Your task to perform on an android device: add a label to a message in the gmail app Image 0: 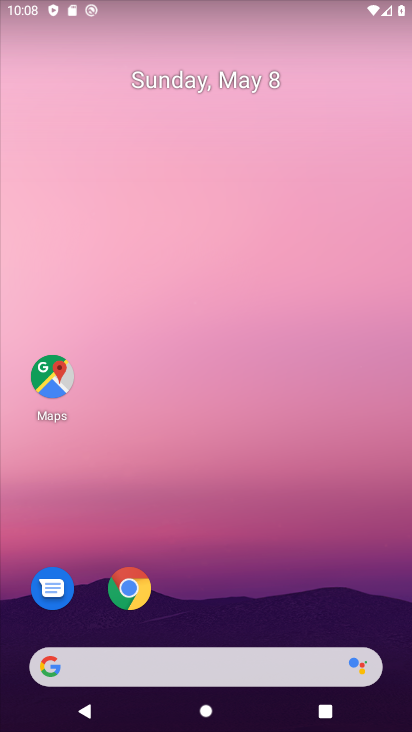
Step 0: drag from (201, 652) to (237, 436)
Your task to perform on an android device: add a label to a message in the gmail app Image 1: 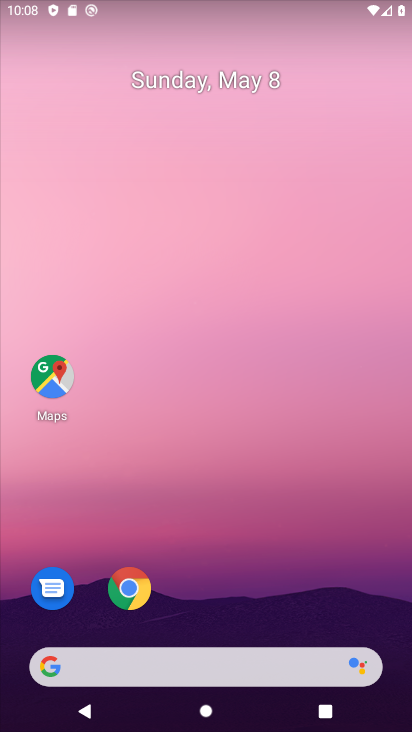
Step 1: drag from (225, 640) to (286, 149)
Your task to perform on an android device: add a label to a message in the gmail app Image 2: 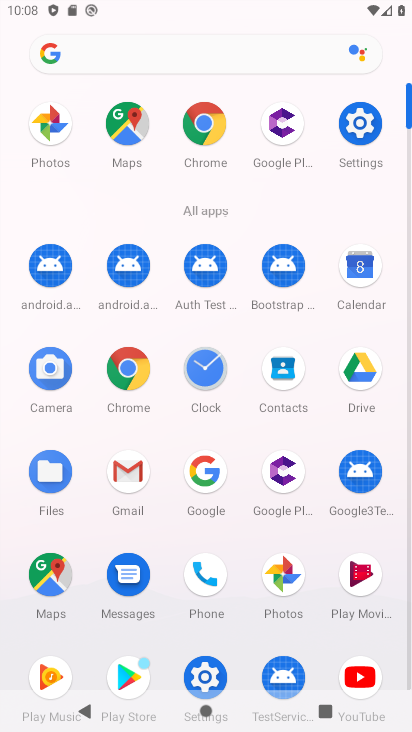
Step 2: click (133, 471)
Your task to perform on an android device: add a label to a message in the gmail app Image 3: 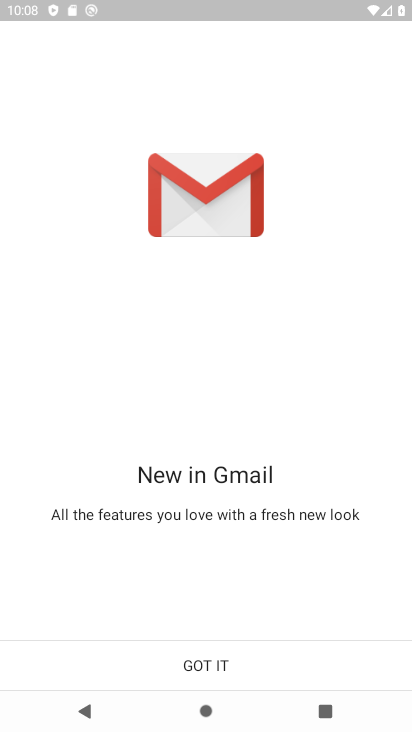
Step 3: click (309, 674)
Your task to perform on an android device: add a label to a message in the gmail app Image 4: 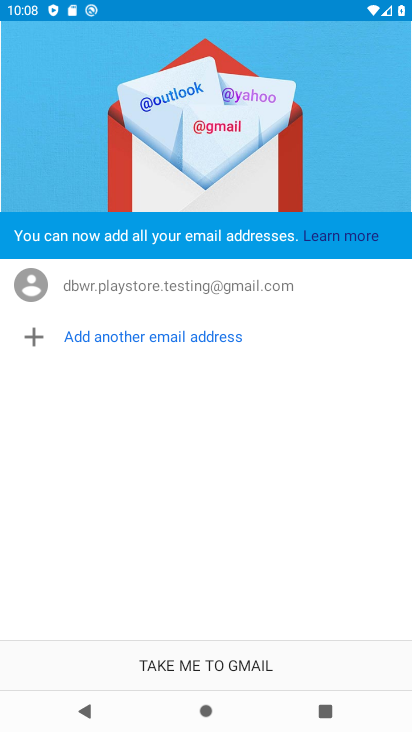
Step 4: click (276, 662)
Your task to perform on an android device: add a label to a message in the gmail app Image 5: 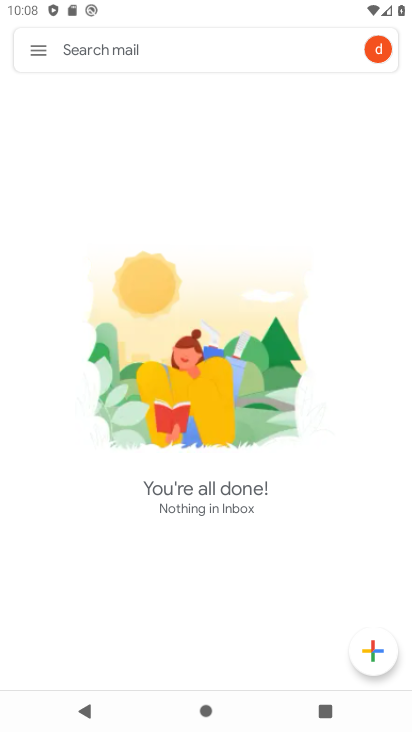
Step 5: click (40, 37)
Your task to perform on an android device: add a label to a message in the gmail app Image 6: 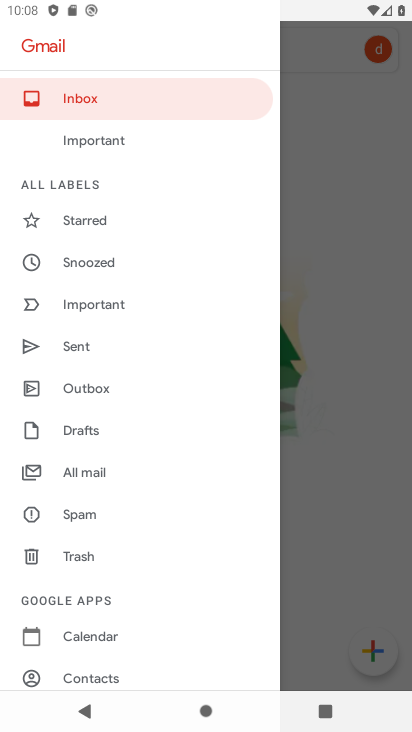
Step 6: click (160, 478)
Your task to perform on an android device: add a label to a message in the gmail app Image 7: 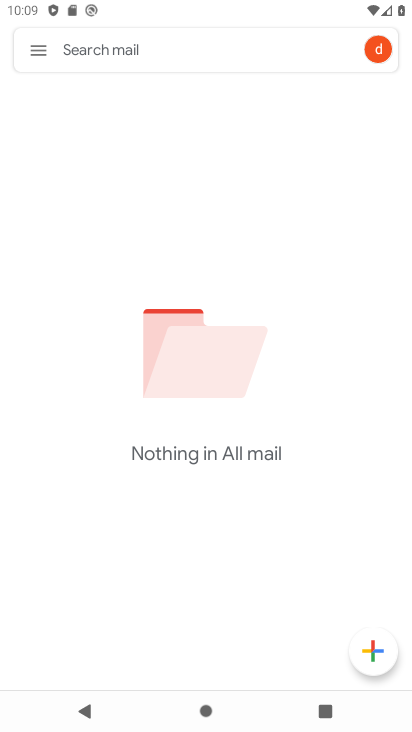
Step 7: task complete